Your task to perform on an android device: turn on sleep mode Image 0: 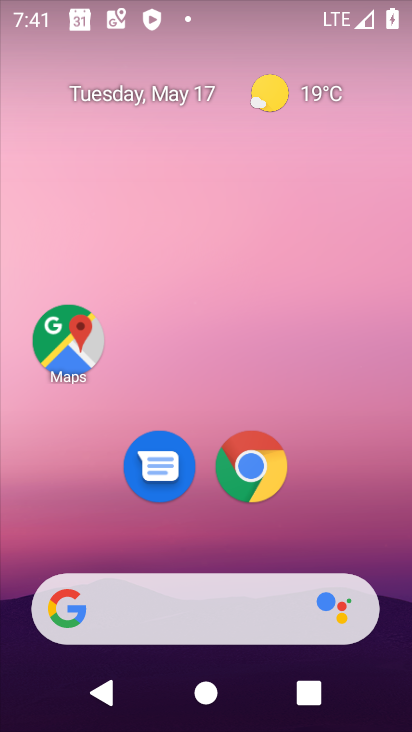
Step 0: press home button
Your task to perform on an android device: turn on sleep mode Image 1: 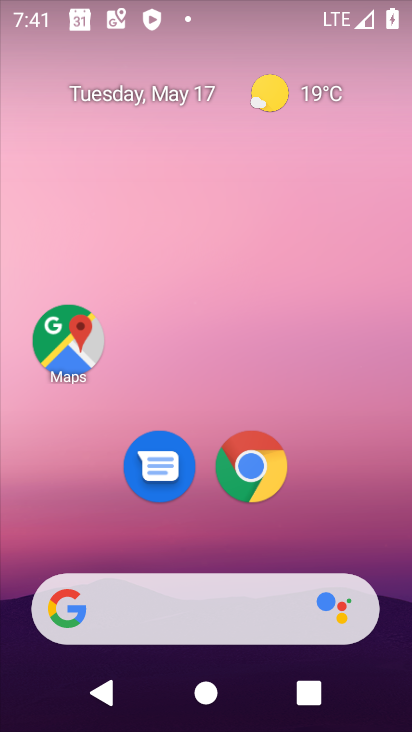
Step 1: drag from (215, 604) to (384, 57)
Your task to perform on an android device: turn on sleep mode Image 2: 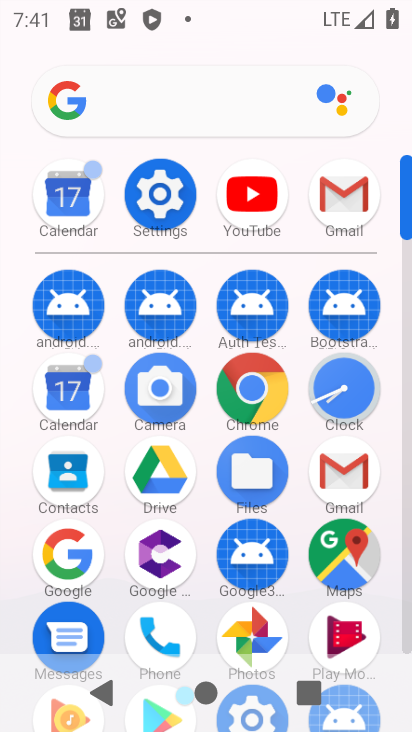
Step 2: click (161, 190)
Your task to perform on an android device: turn on sleep mode Image 3: 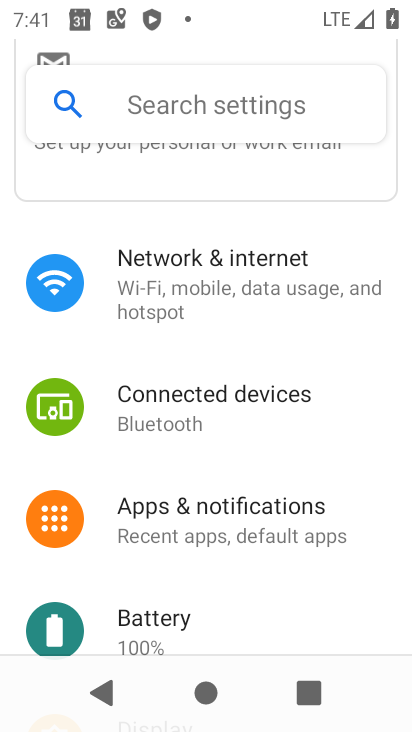
Step 3: drag from (254, 610) to (393, 173)
Your task to perform on an android device: turn on sleep mode Image 4: 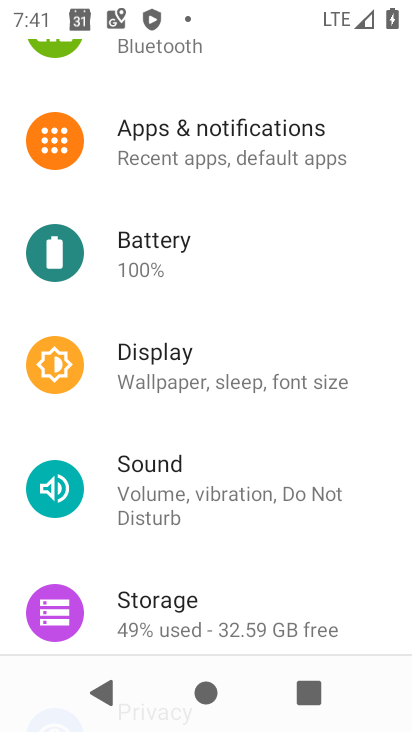
Step 4: click (256, 387)
Your task to perform on an android device: turn on sleep mode Image 5: 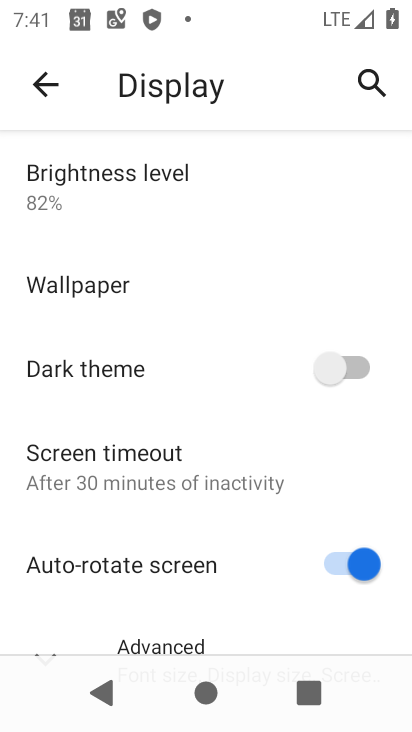
Step 5: task complete